Your task to perform on an android device: Do I have any events tomorrow? Image 0: 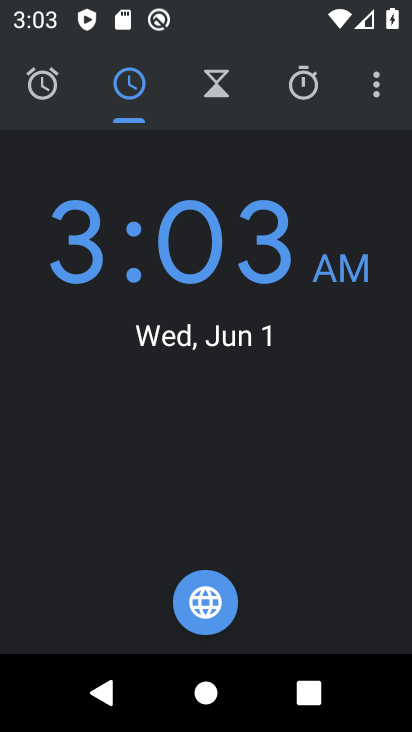
Step 0: press home button
Your task to perform on an android device: Do I have any events tomorrow? Image 1: 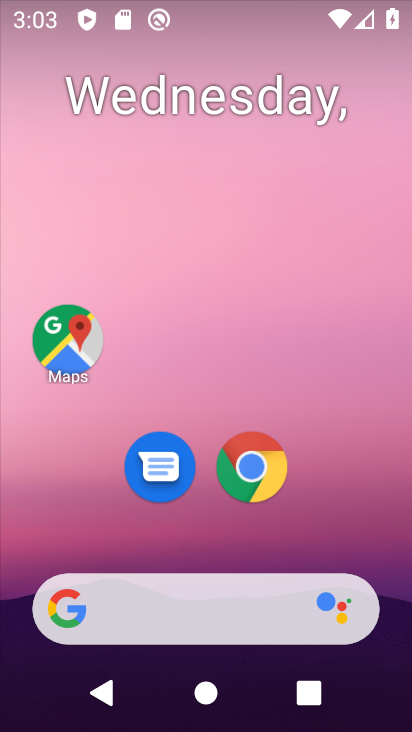
Step 1: drag from (332, 536) to (267, 31)
Your task to perform on an android device: Do I have any events tomorrow? Image 2: 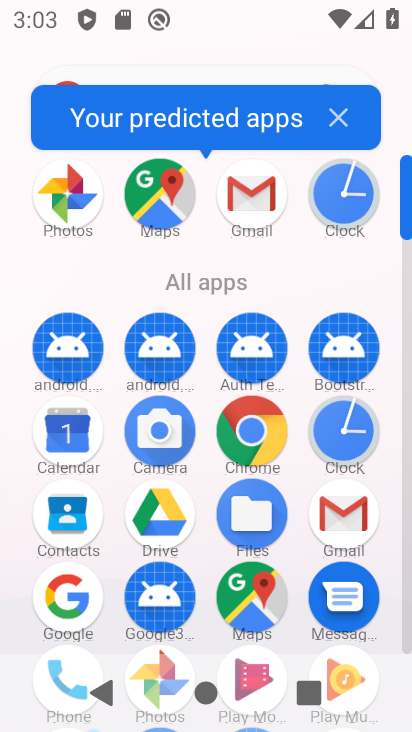
Step 2: click (74, 428)
Your task to perform on an android device: Do I have any events tomorrow? Image 3: 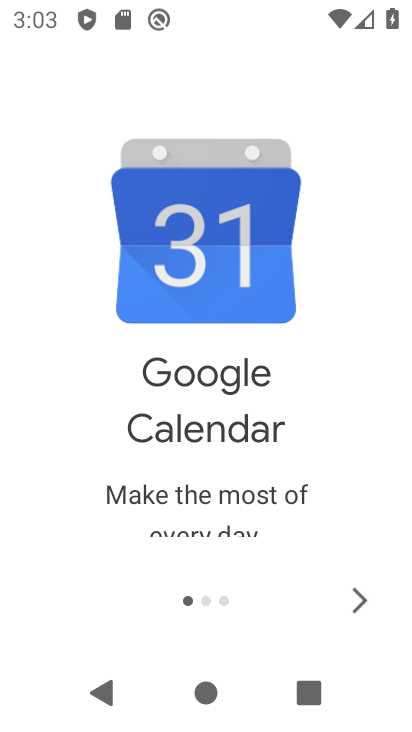
Step 3: click (358, 598)
Your task to perform on an android device: Do I have any events tomorrow? Image 4: 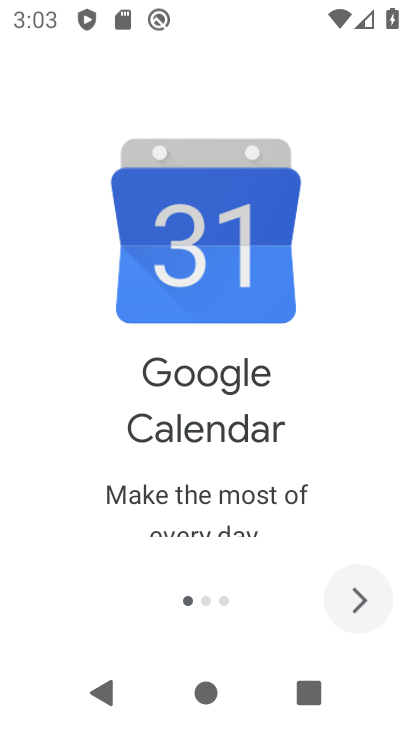
Step 4: click (358, 598)
Your task to perform on an android device: Do I have any events tomorrow? Image 5: 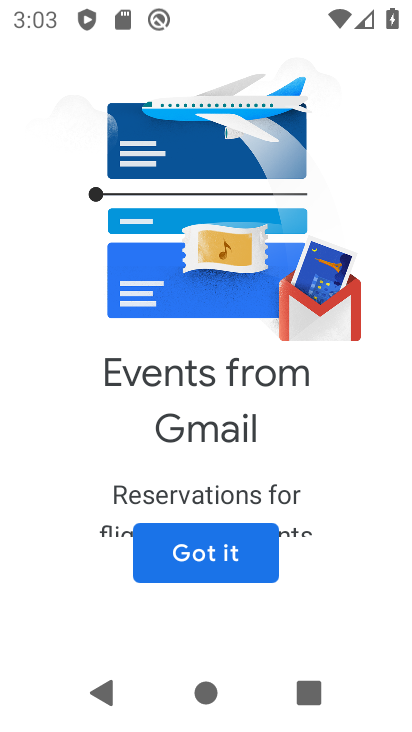
Step 5: click (219, 576)
Your task to perform on an android device: Do I have any events tomorrow? Image 6: 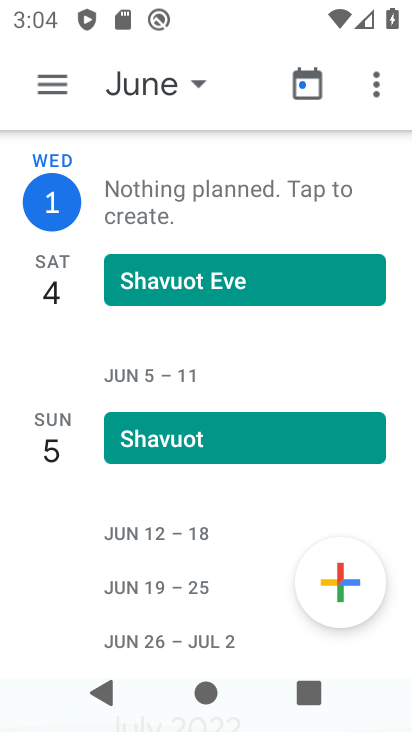
Step 6: click (191, 82)
Your task to perform on an android device: Do I have any events tomorrow? Image 7: 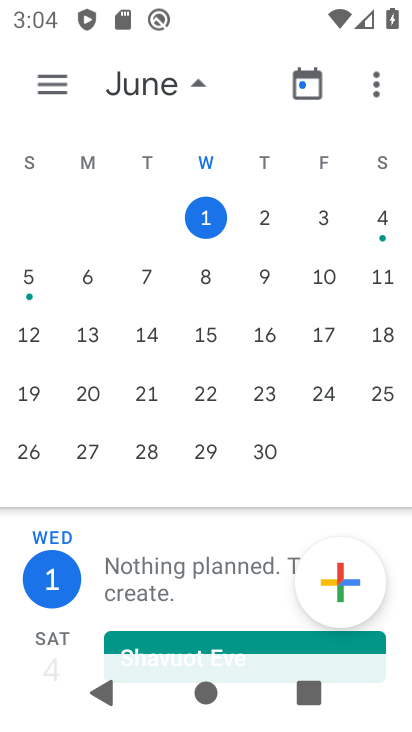
Step 7: click (261, 220)
Your task to perform on an android device: Do I have any events tomorrow? Image 8: 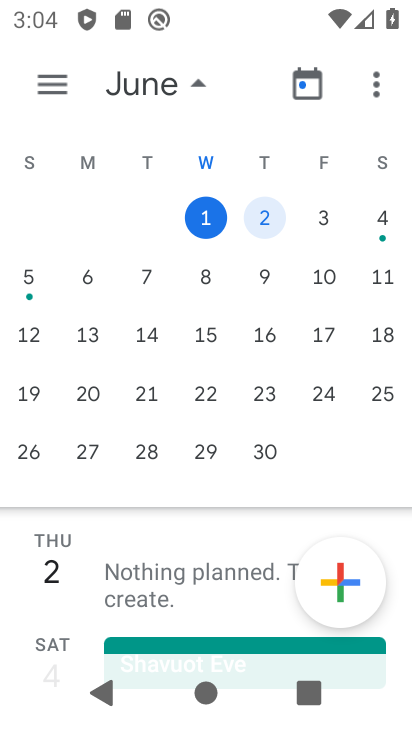
Step 8: task complete